Your task to perform on an android device: Go to notification settings Image 0: 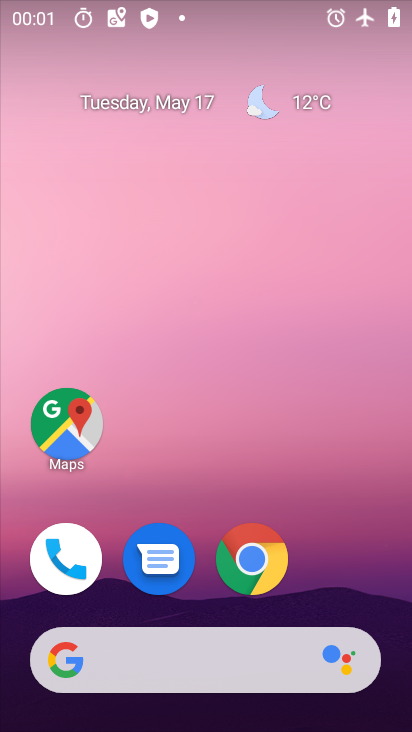
Step 0: drag from (262, 322) to (225, 89)
Your task to perform on an android device: Go to notification settings Image 1: 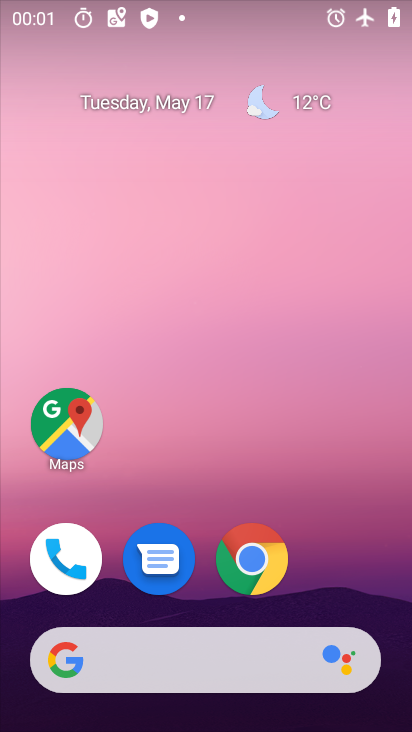
Step 1: drag from (331, 563) to (333, 14)
Your task to perform on an android device: Go to notification settings Image 2: 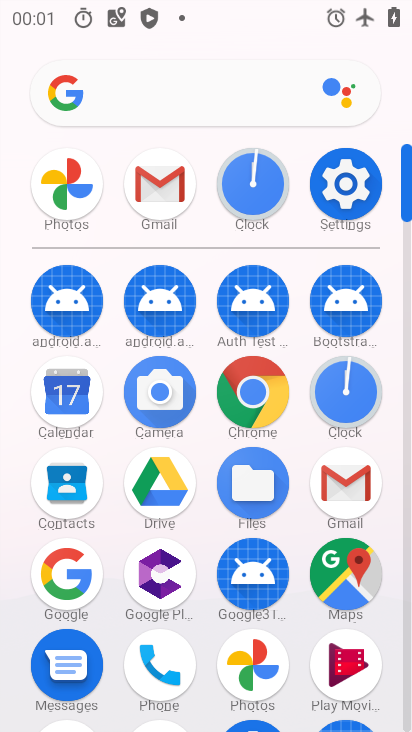
Step 2: click (346, 177)
Your task to perform on an android device: Go to notification settings Image 3: 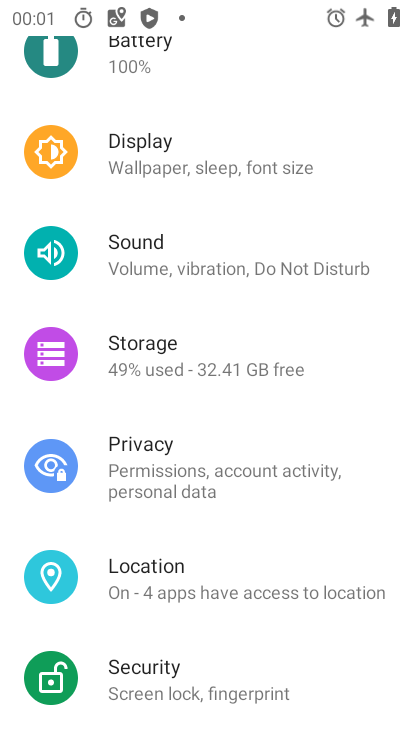
Step 3: drag from (202, 159) to (225, 651)
Your task to perform on an android device: Go to notification settings Image 4: 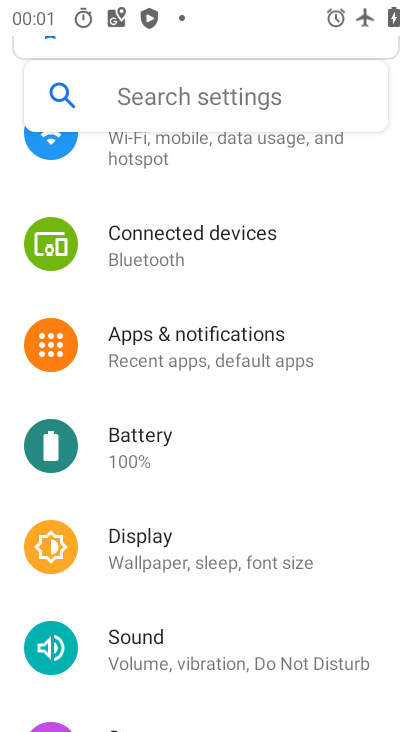
Step 4: click (224, 358)
Your task to perform on an android device: Go to notification settings Image 5: 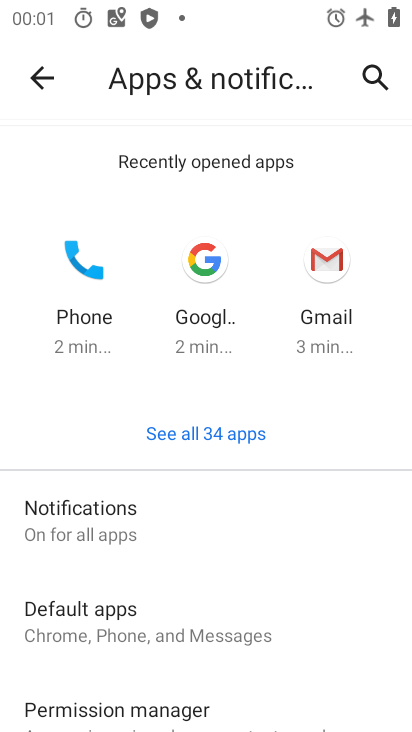
Step 5: click (113, 503)
Your task to perform on an android device: Go to notification settings Image 6: 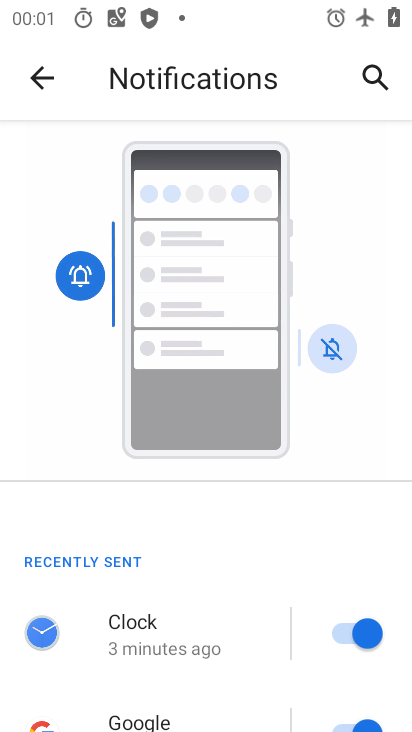
Step 6: task complete